Your task to perform on an android device: turn on showing notifications on the lock screen Image 0: 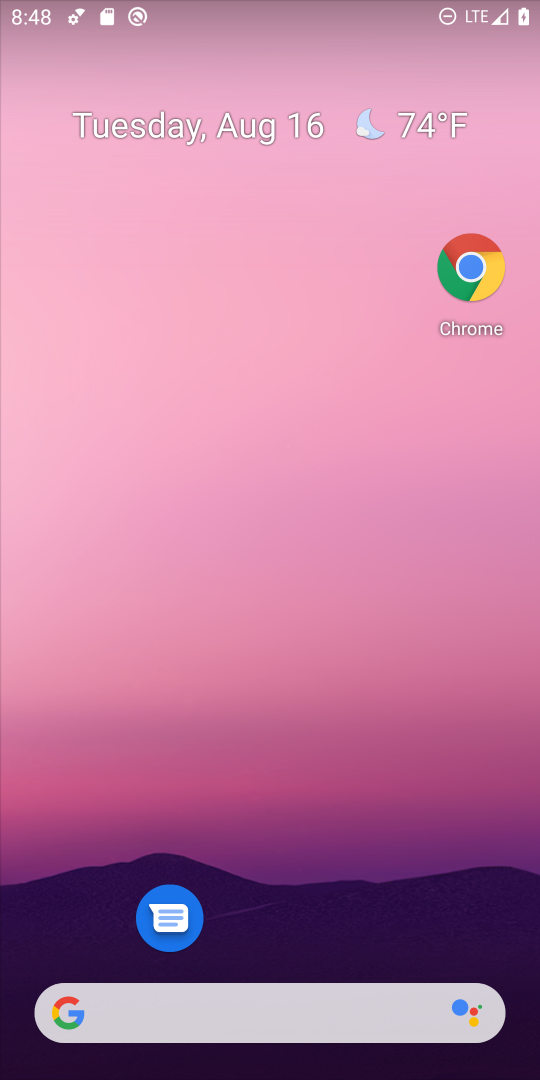
Step 0: drag from (389, 932) to (440, 87)
Your task to perform on an android device: turn on showing notifications on the lock screen Image 1: 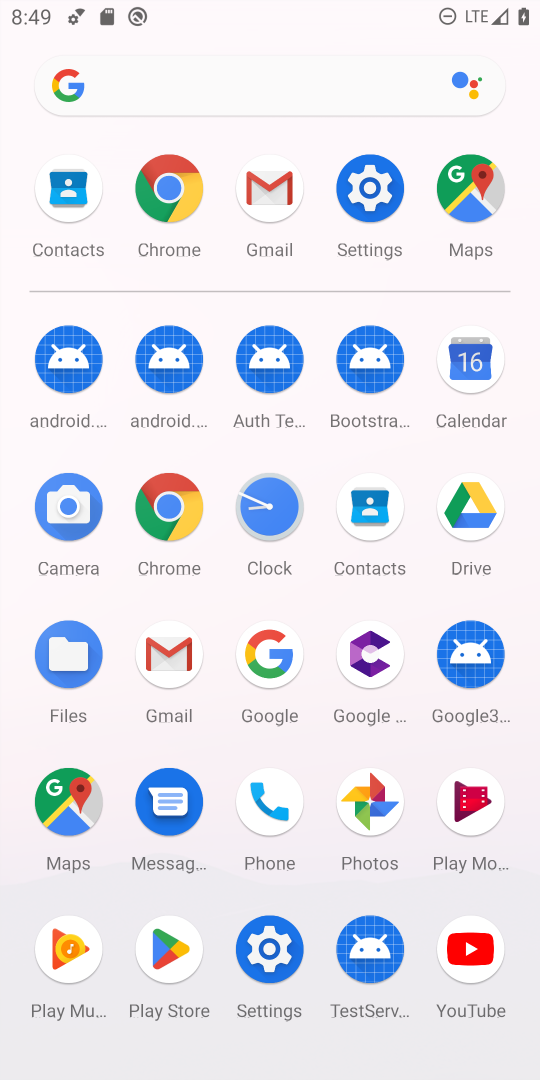
Step 1: click (372, 222)
Your task to perform on an android device: turn on showing notifications on the lock screen Image 2: 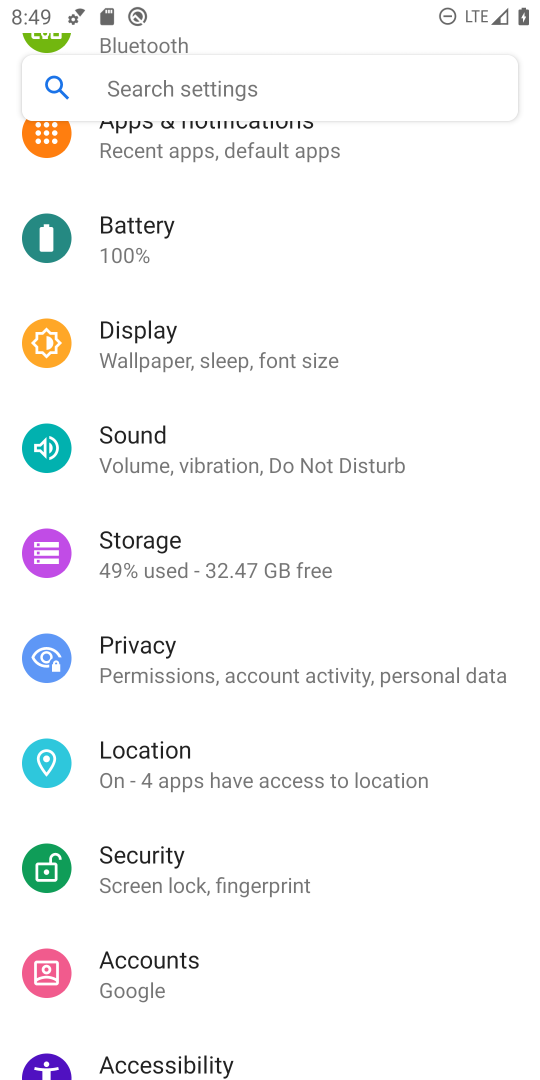
Step 2: click (256, 144)
Your task to perform on an android device: turn on showing notifications on the lock screen Image 3: 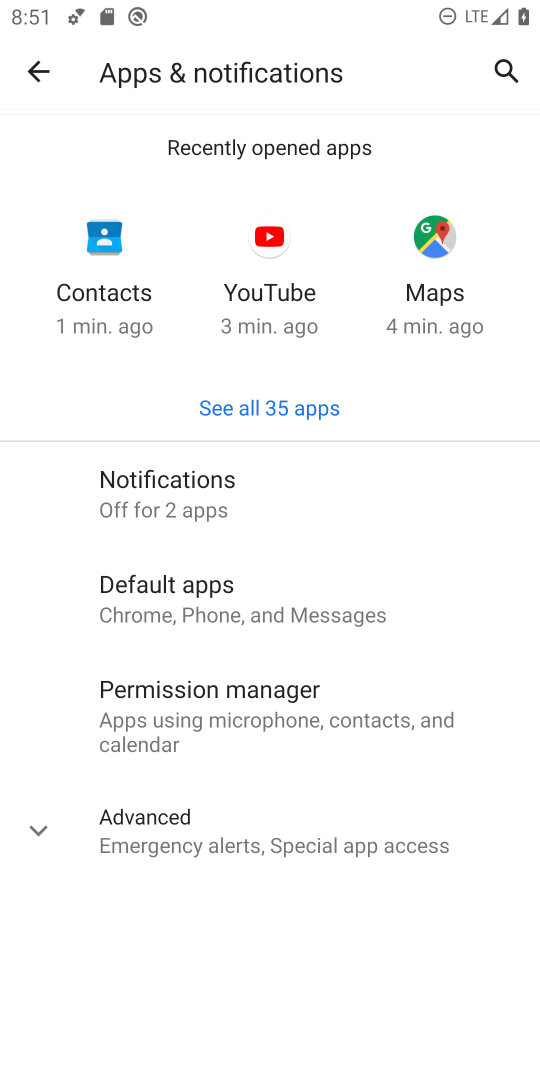
Step 3: click (195, 504)
Your task to perform on an android device: turn on showing notifications on the lock screen Image 4: 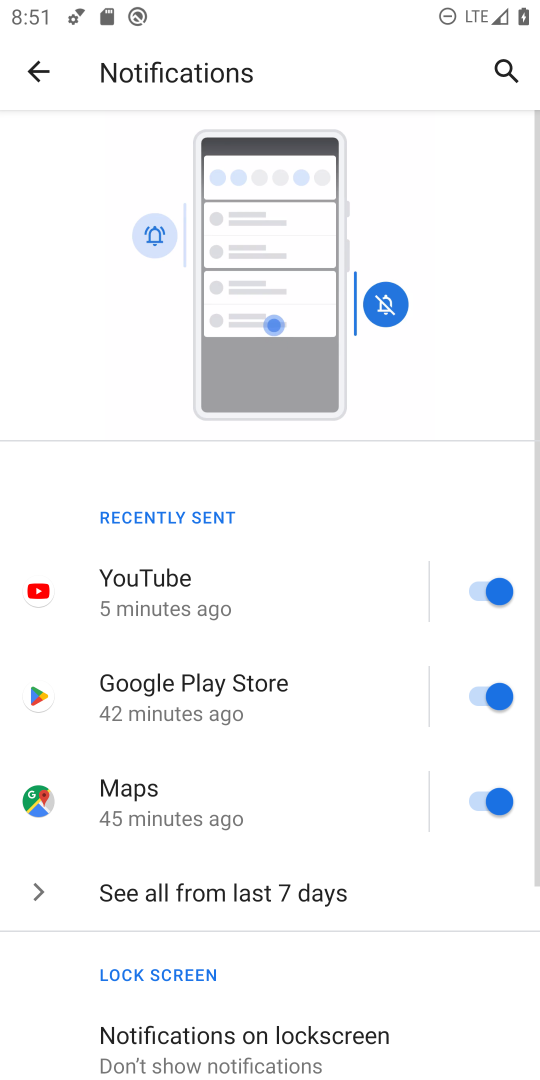
Step 4: click (213, 1036)
Your task to perform on an android device: turn on showing notifications on the lock screen Image 5: 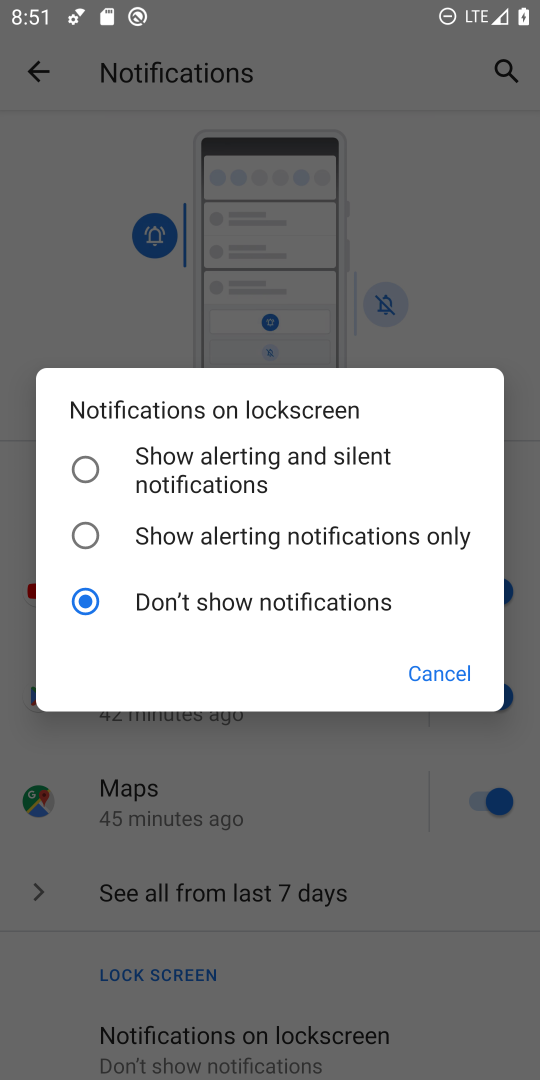
Step 5: click (289, 477)
Your task to perform on an android device: turn on showing notifications on the lock screen Image 6: 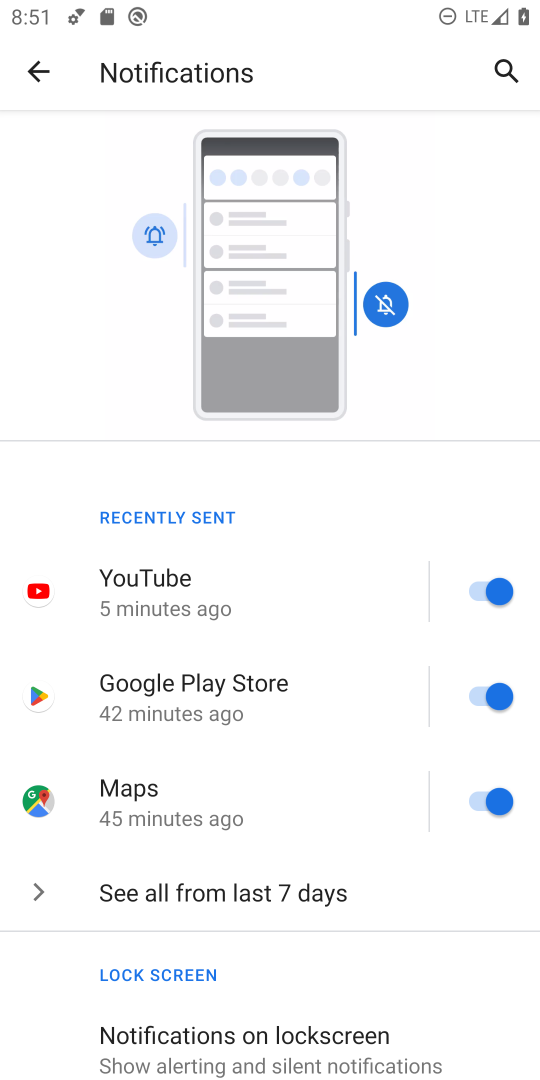
Step 6: task complete